Your task to perform on an android device: allow cookies in the chrome app Image 0: 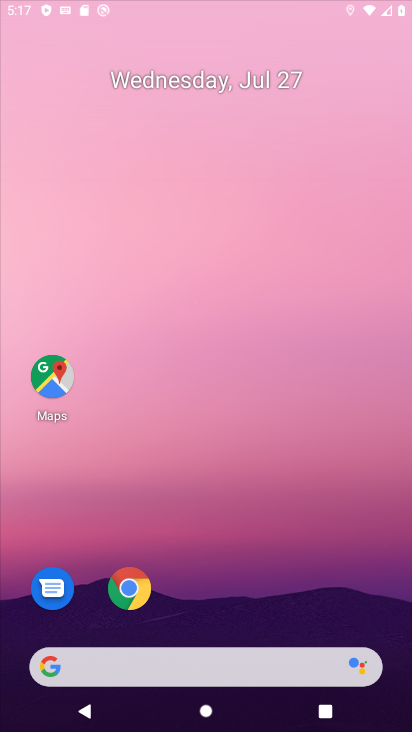
Step 0: drag from (285, 631) to (289, 76)
Your task to perform on an android device: allow cookies in the chrome app Image 1: 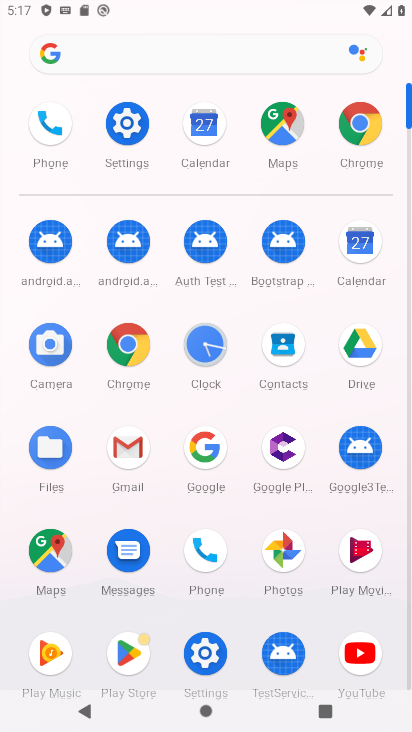
Step 1: click (130, 365)
Your task to perform on an android device: allow cookies in the chrome app Image 2: 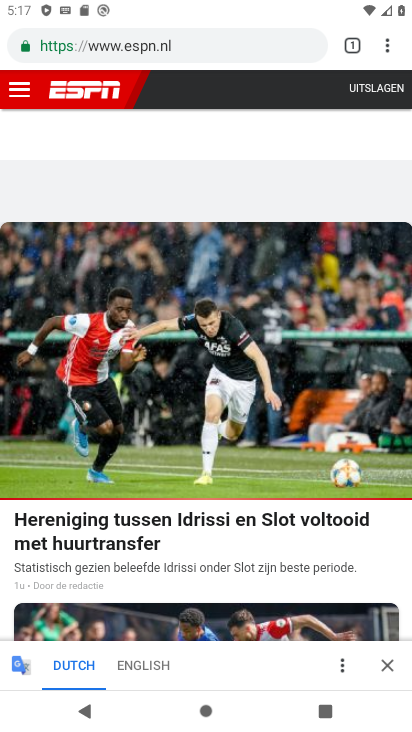
Step 2: click (386, 39)
Your task to perform on an android device: allow cookies in the chrome app Image 3: 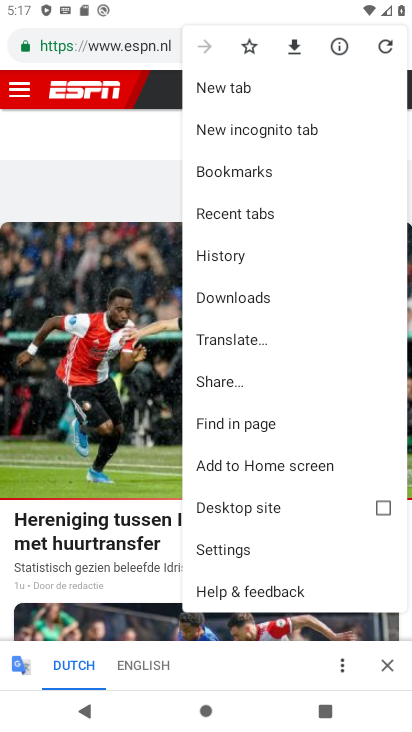
Step 3: click (263, 545)
Your task to perform on an android device: allow cookies in the chrome app Image 4: 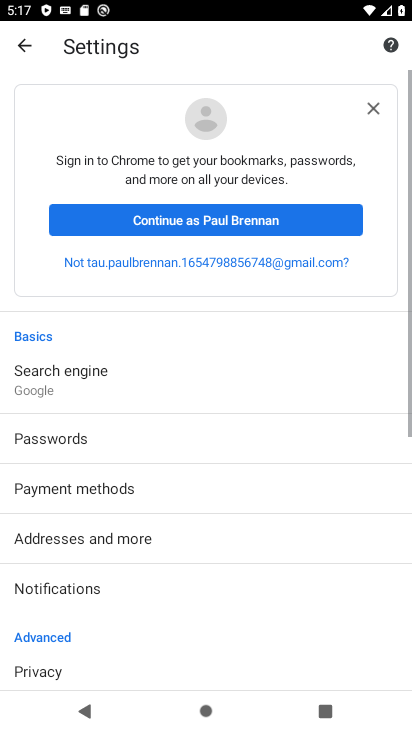
Step 4: drag from (171, 607) to (331, 187)
Your task to perform on an android device: allow cookies in the chrome app Image 5: 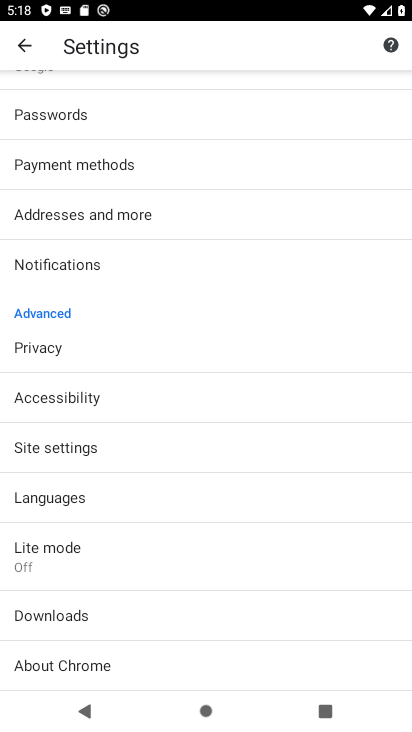
Step 5: click (56, 453)
Your task to perform on an android device: allow cookies in the chrome app Image 6: 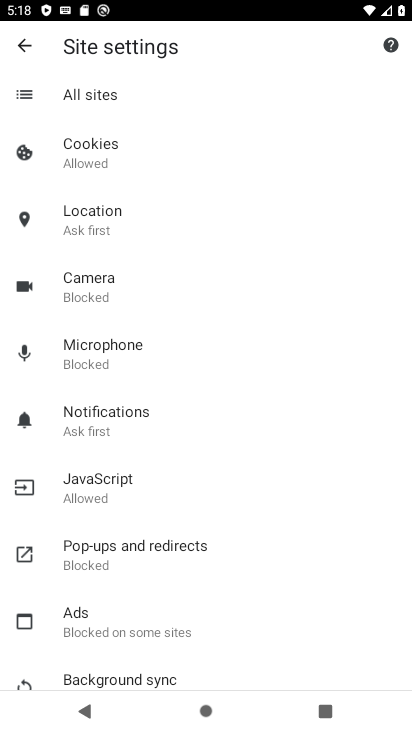
Step 6: task complete